Your task to perform on an android device: Turn off the flashlight Image 0: 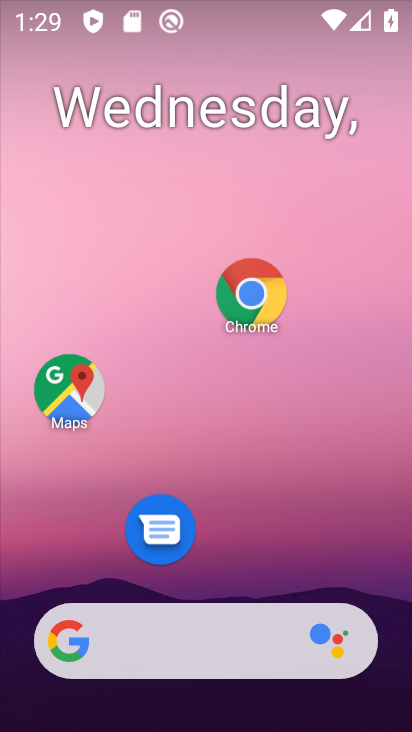
Step 0: drag from (206, 632) to (236, 350)
Your task to perform on an android device: Turn off the flashlight Image 1: 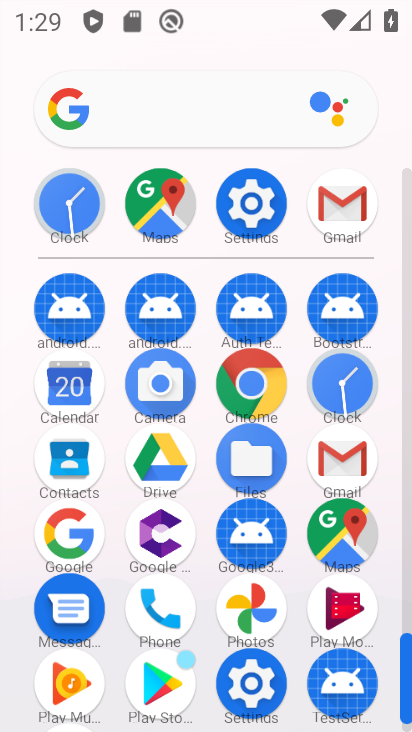
Step 1: task complete